Your task to perform on an android device: What is the news today? Image 0: 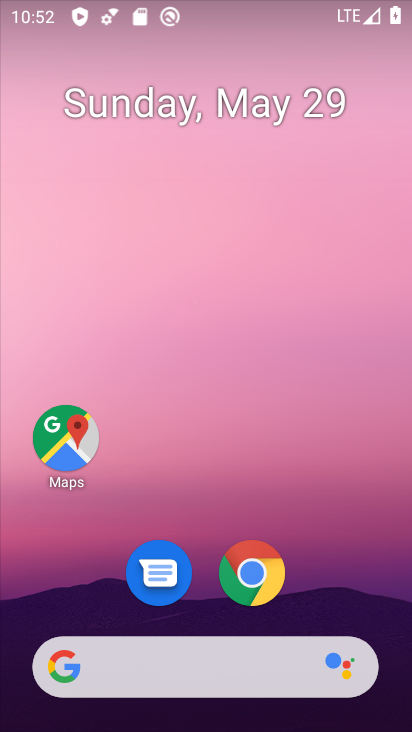
Step 0: drag from (278, 390) to (152, 47)
Your task to perform on an android device: What is the news today? Image 1: 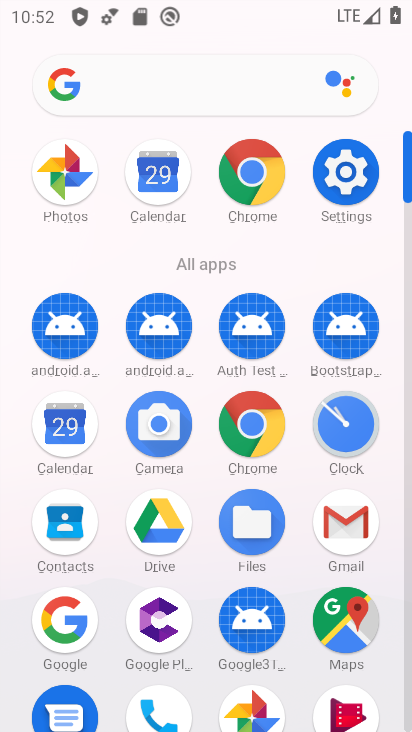
Step 1: click (71, 616)
Your task to perform on an android device: What is the news today? Image 2: 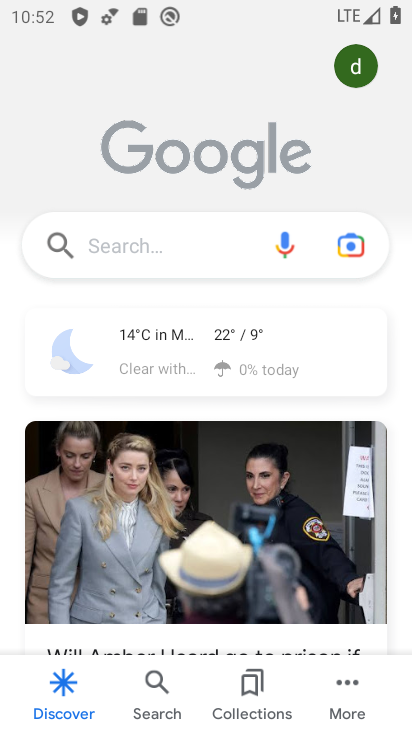
Step 2: click (172, 251)
Your task to perform on an android device: What is the news today? Image 3: 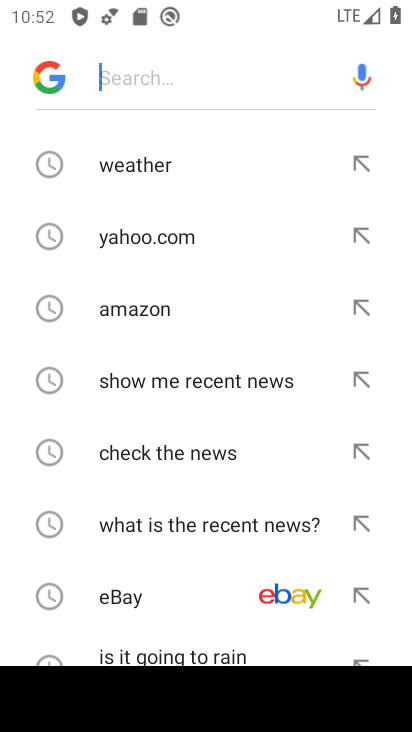
Step 3: drag from (195, 495) to (195, 203)
Your task to perform on an android device: What is the news today? Image 4: 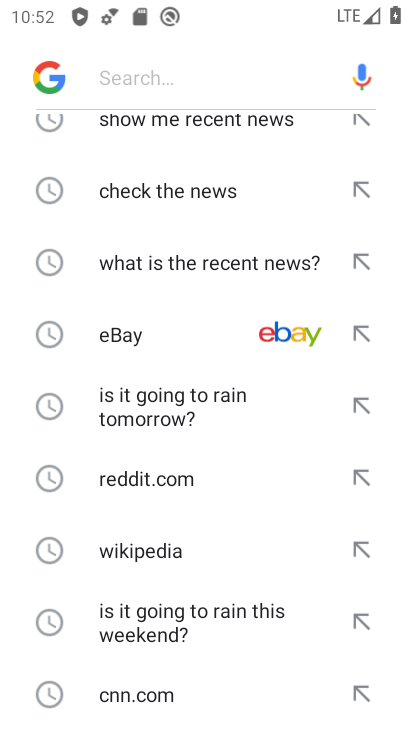
Step 4: drag from (182, 530) to (195, 192)
Your task to perform on an android device: What is the news today? Image 5: 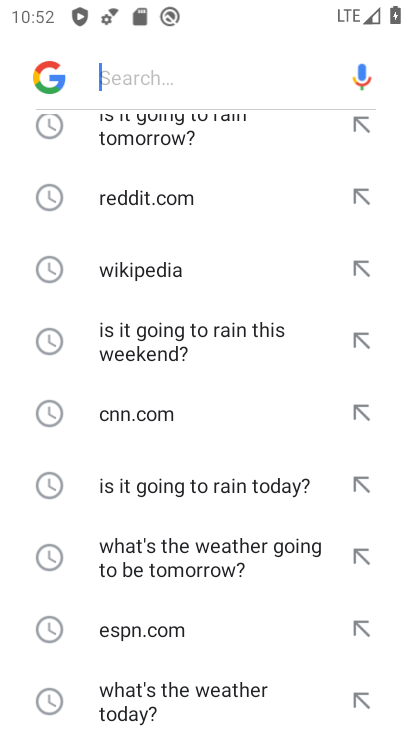
Step 5: drag from (187, 475) to (196, 105)
Your task to perform on an android device: What is the news today? Image 6: 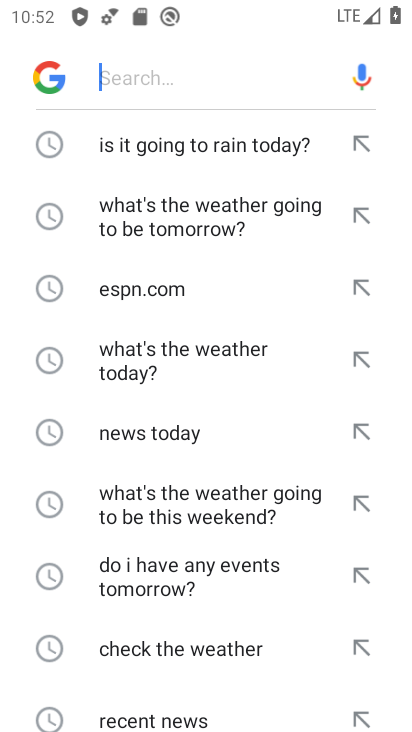
Step 6: click (166, 427)
Your task to perform on an android device: What is the news today? Image 7: 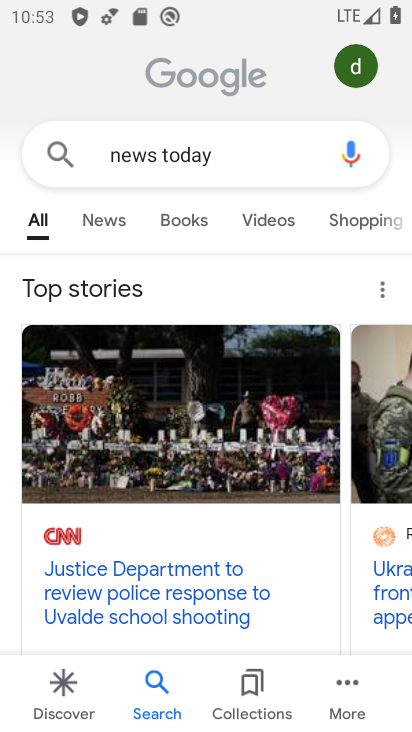
Step 7: task complete